Your task to perform on an android device: Go to Reddit.com Image 0: 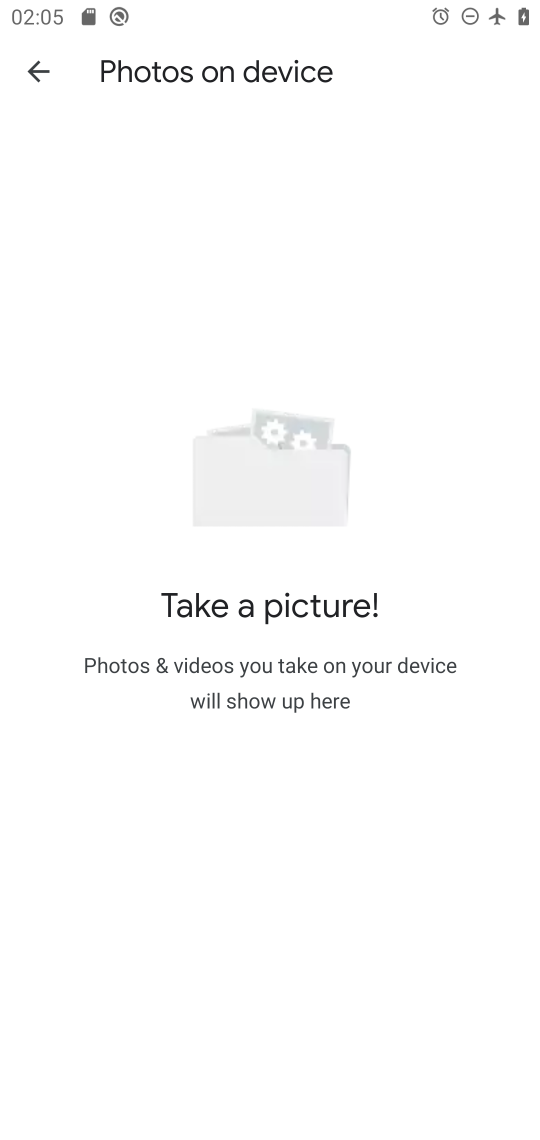
Step 0: press home button
Your task to perform on an android device: Go to Reddit.com Image 1: 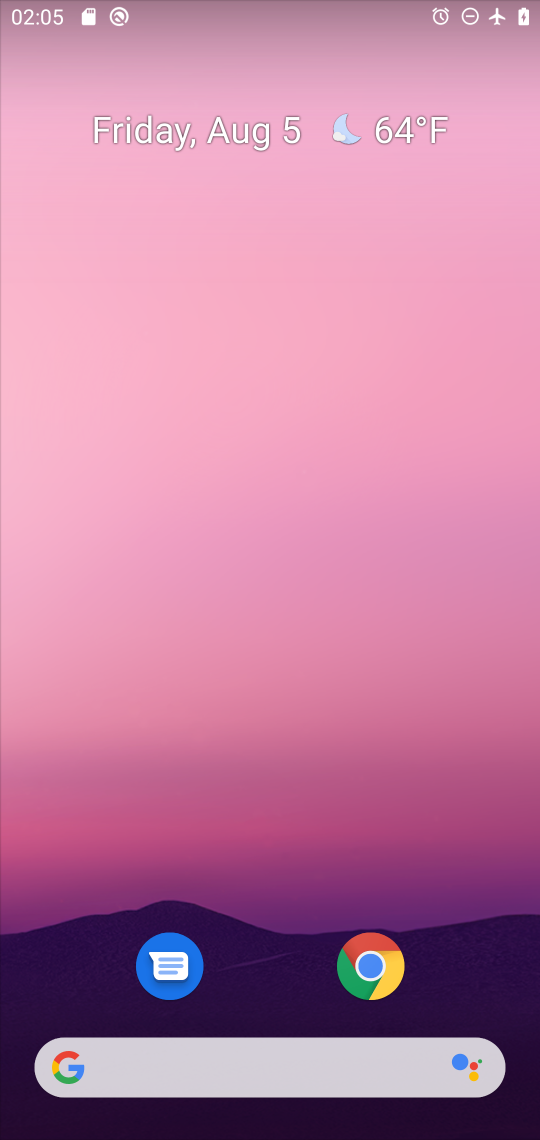
Step 1: click (208, 1059)
Your task to perform on an android device: Go to Reddit.com Image 2: 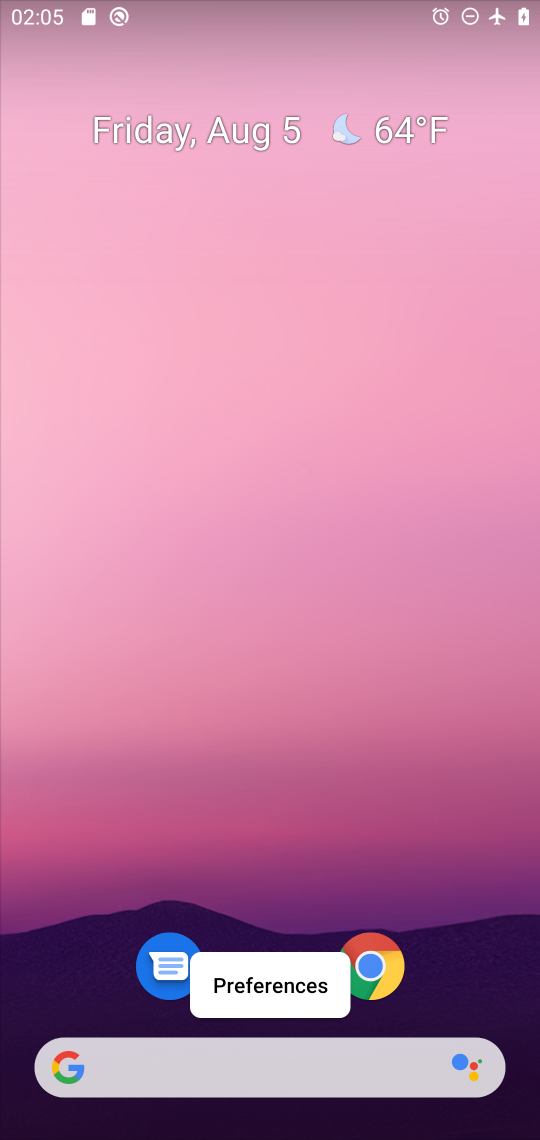
Step 2: click (208, 1059)
Your task to perform on an android device: Go to Reddit.com Image 3: 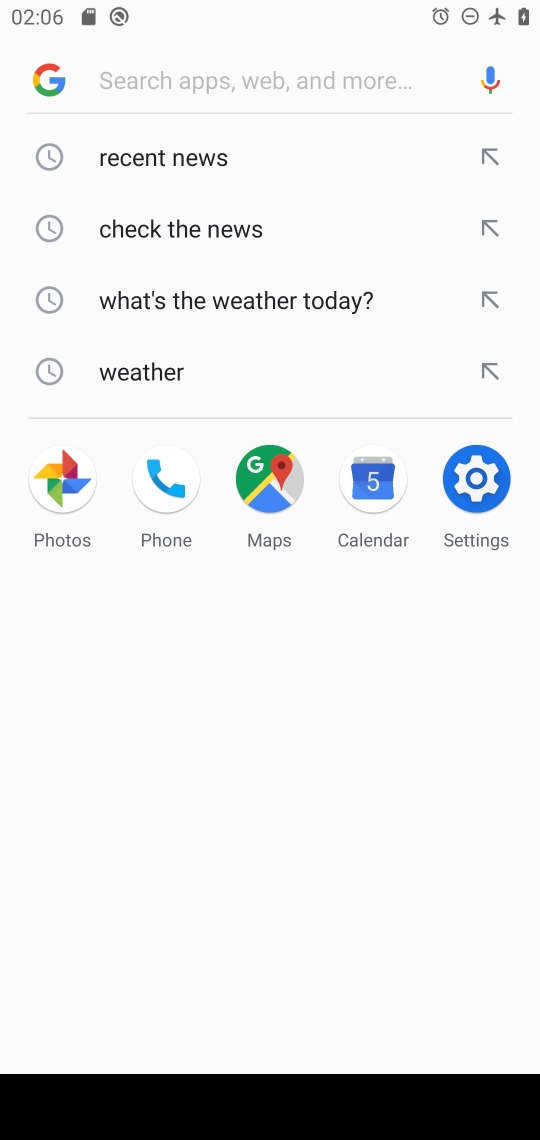
Step 3: type "reddit.com"
Your task to perform on an android device: Go to Reddit.com Image 4: 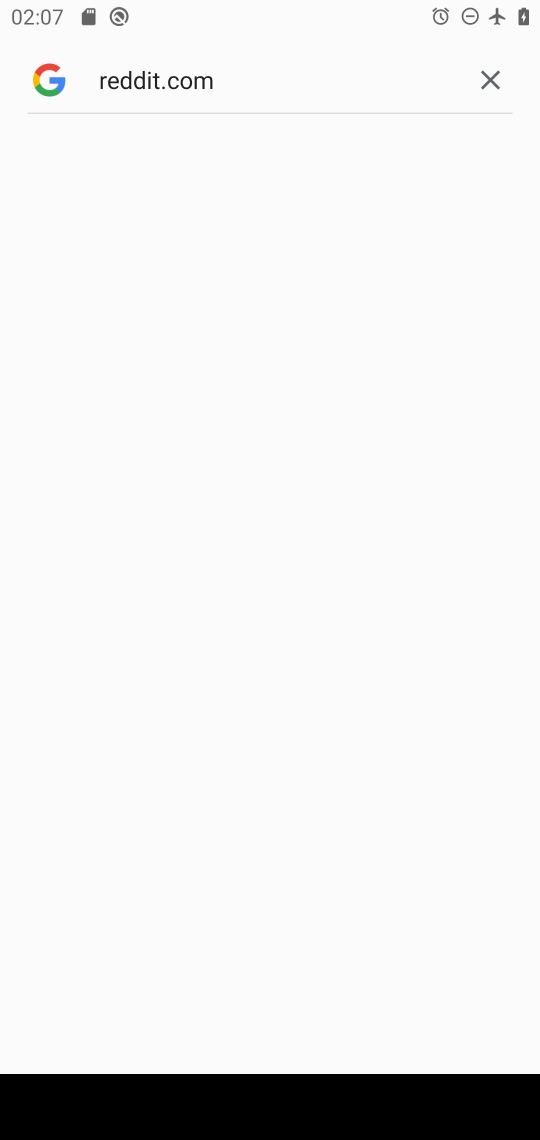
Step 4: task complete